Your task to perform on an android device: Open Youtube and go to the subscriptions tab Image 0: 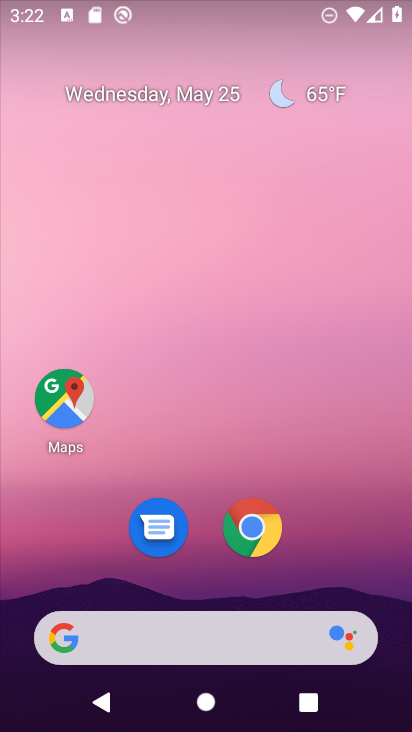
Step 0: drag from (198, 594) to (252, 1)
Your task to perform on an android device: Open Youtube and go to the subscriptions tab Image 1: 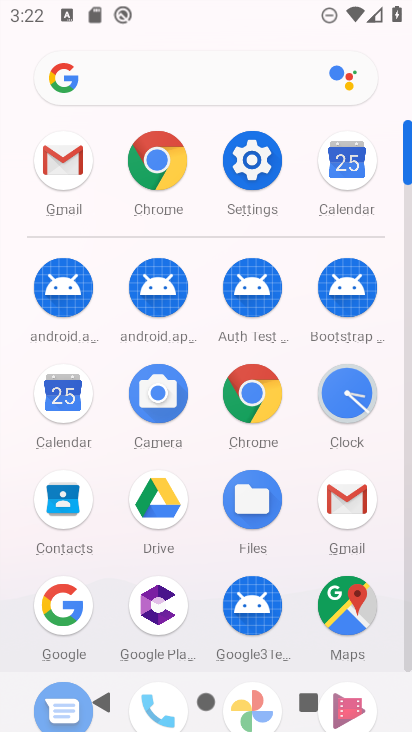
Step 1: drag from (306, 652) to (309, 206)
Your task to perform on an android device: Open Youtube and go to the subscriptions tab Image 2: 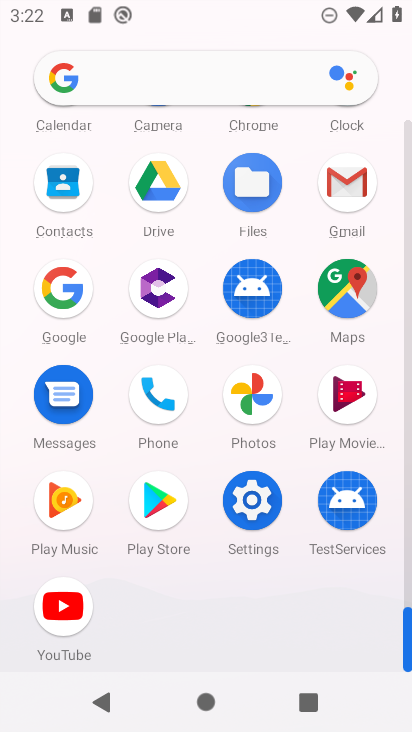
Step 2: click (41, 603)
Your task to perform on an android device: Open Youtube and go to the subscriptions tab Image 3: 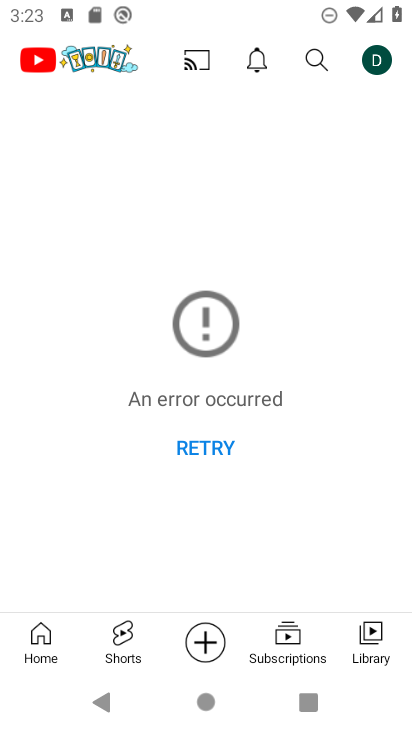
Step 3: click (291, 644)
Your task to perform on an android device: Open Youtube and go to the subscriptions tab Image 4: 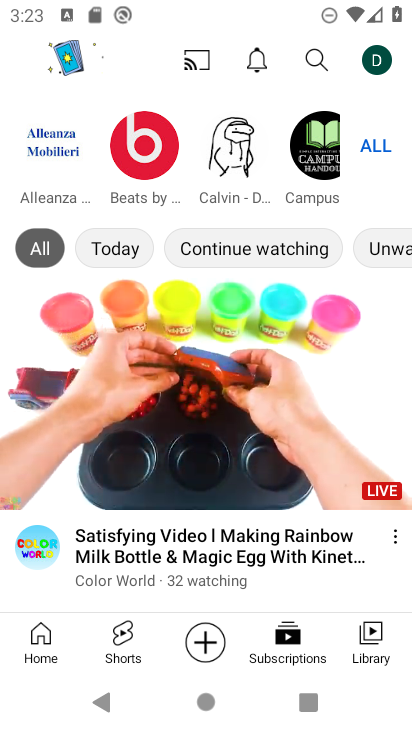
Step 4: task complete